Your task to perform on an android device: turn off airplane mode Image 0: 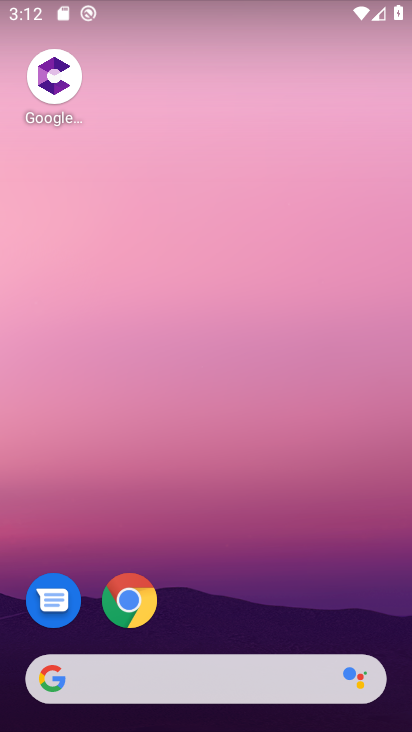
Step 0: drag from (262, 579) to (263, 103)
Your task to perform on an android device: turn off airplane mode Image 1: 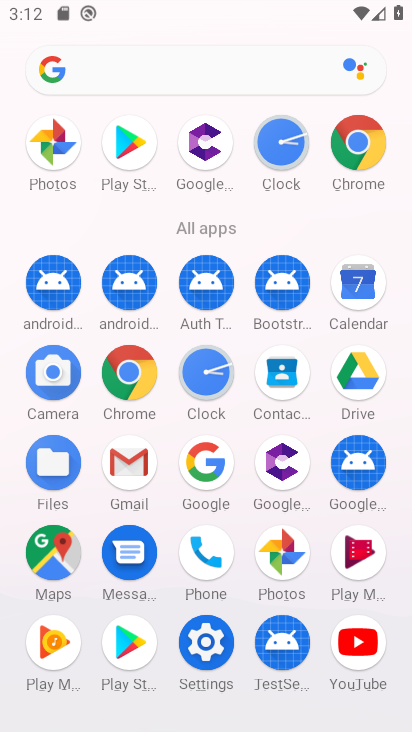
Step 1: click (207, 634)
Your task to perform on an android device: turn off airplane mode Image 2: 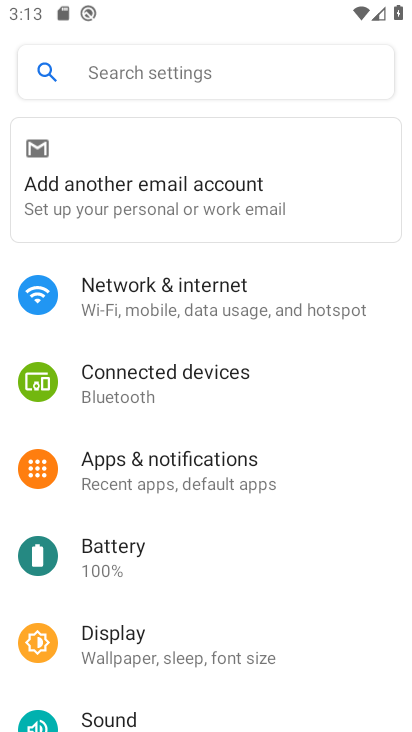
Step 2: click (195, 182)
Your task to perform on an android device: turn off airplane mode Image 3: 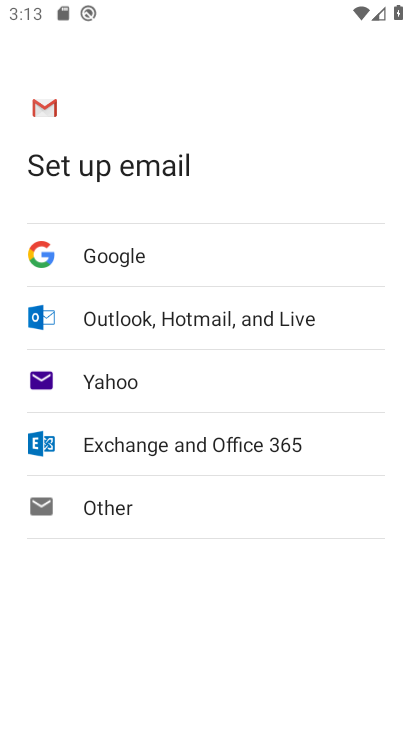
Step 3: press back button
Your task to perform on an android device: turn off airplane mode Image 4: 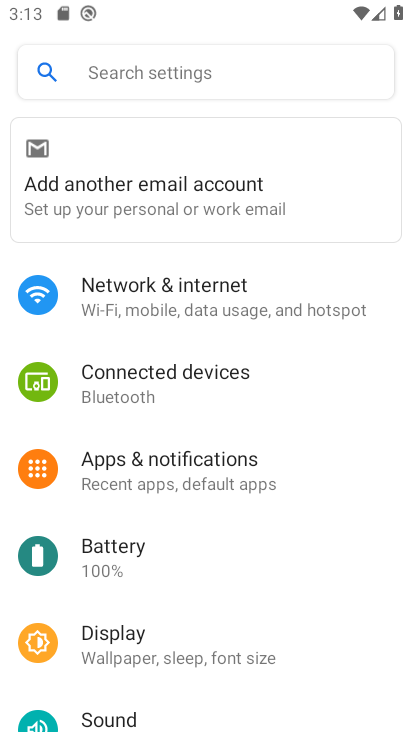
Step 4: click (241, 309)
Your task to perform on an android device: turn off airplane mode Image 5: 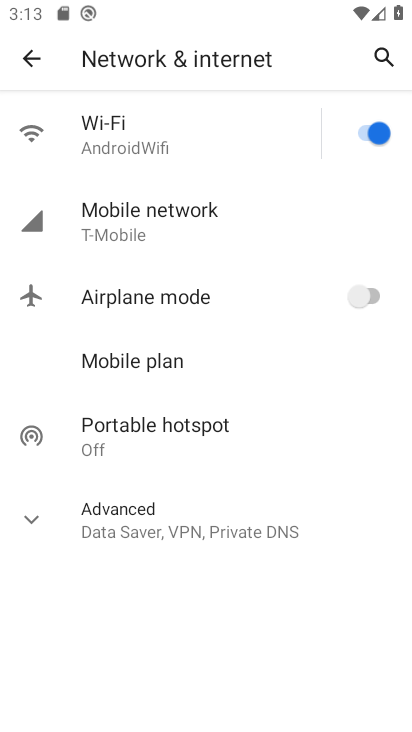
Step 5: task complete